Your task to perform on an android device: Search for sushi restaurants on Maps Image 0: 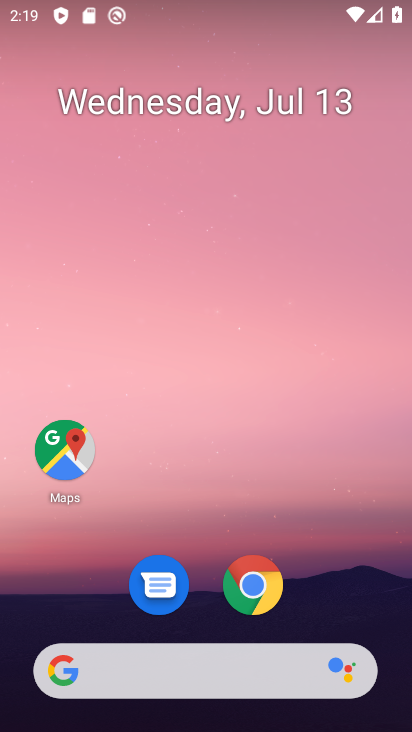
Step 0: press home button
Your task to perform on an android device: Search for sushi restaurants on Maps Image 1: 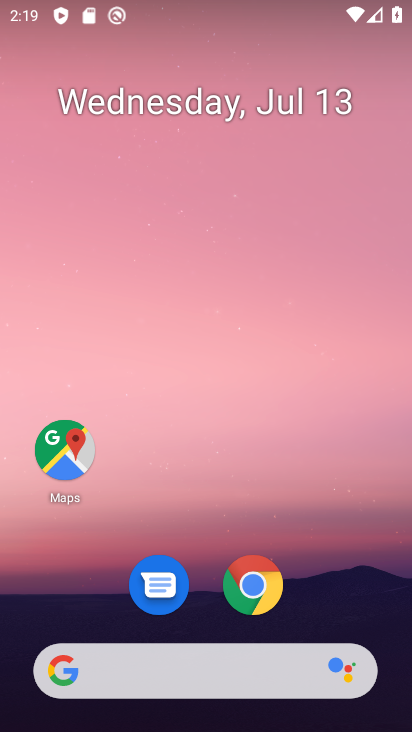
Step 1: click (69, 447)
Your task to perform on an android device: Search for sushi restaurants on Maps Image 2: 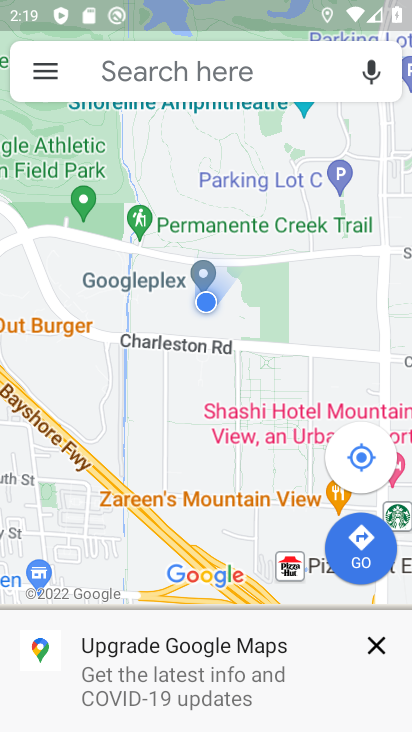
Step 2: click (157, 80)
Your task to perform on an android device: Search for sushi restaurants on Maps Image 3: 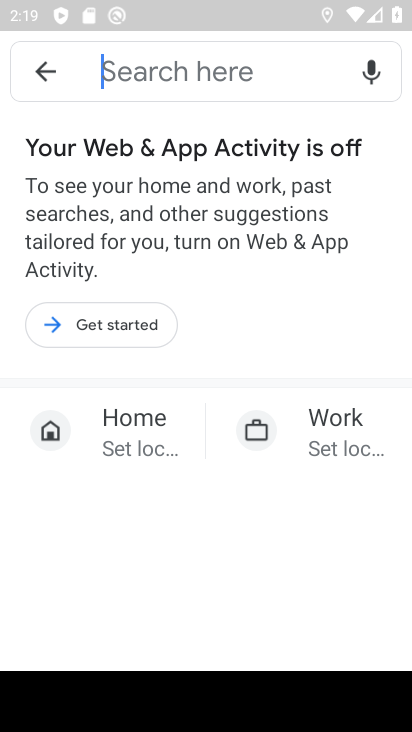
Step 3: type "sushi restaurants"
Your task to perform on an android device: Search for sushi restaurants on Maps Image 4: 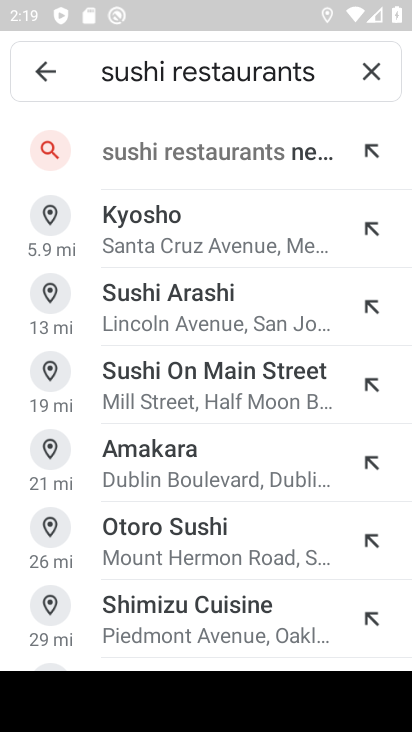
Step 4: click (261, 154)
Your task to perform on an android device: Search for sushi restaurants on Maps Image 5: 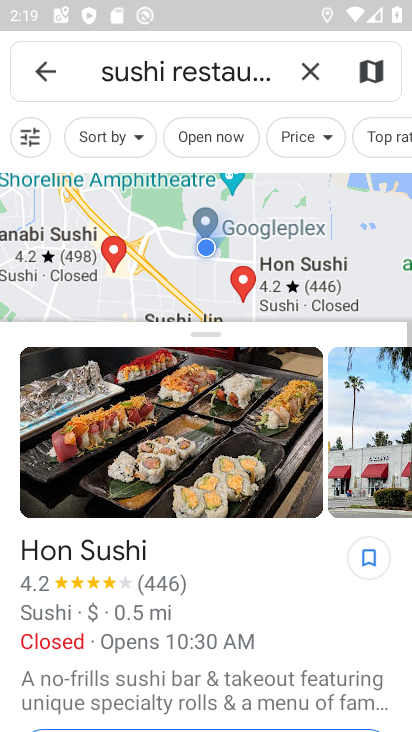
Step 5: task complete